Your task to perform on an android device: Go to wifi settings Image 0: 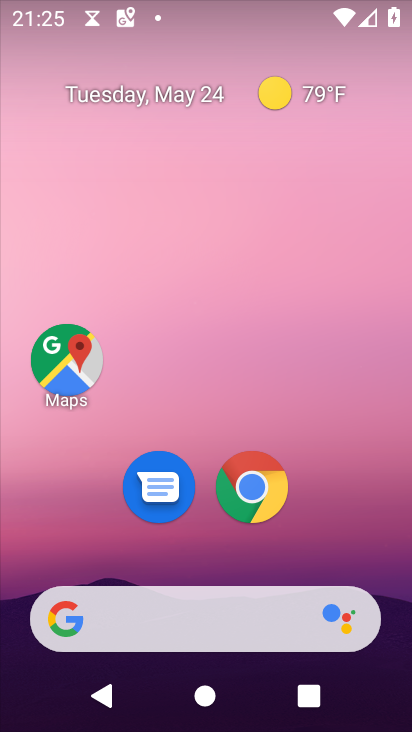
Step 0: press home button
Your task to perform on an android device: Go to wifi settings Image 1: 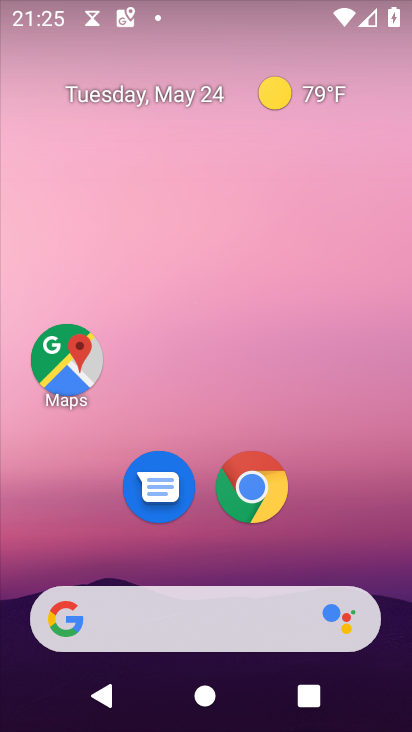
Step 1: drag from (349, 543) to (336, 143)
Your task to perform on an android device: Go to wifi settings Image 2: 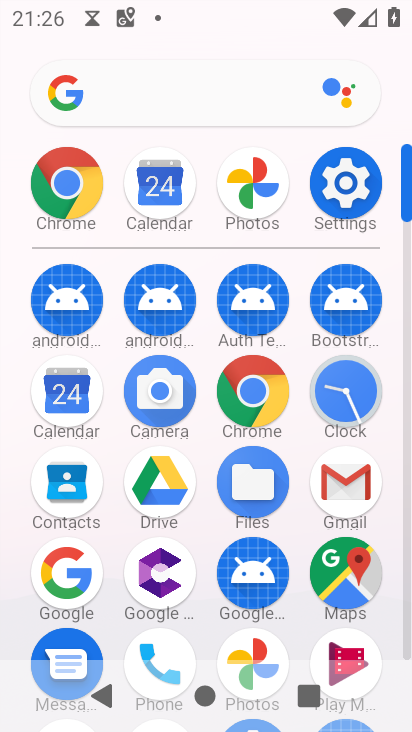
Step 2: drag from (304, 2) to (268, 707)
Your task to perform on an android device: Go to wifi settings Image 3: 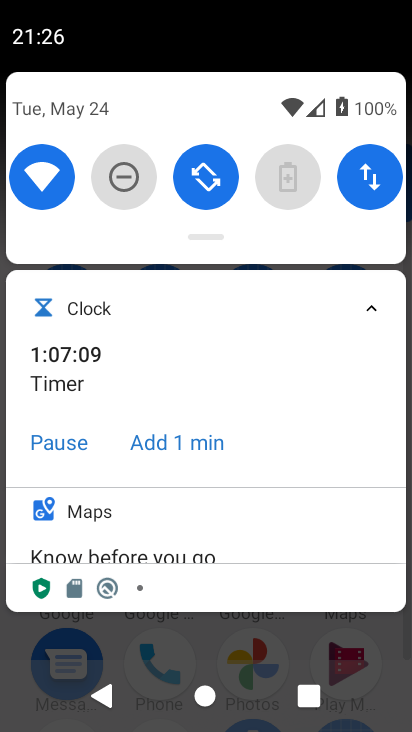
Step 3: drag from (227, 215) to (247, 724)
Your task to perform on an android device: Go to wifi settings Image 4: 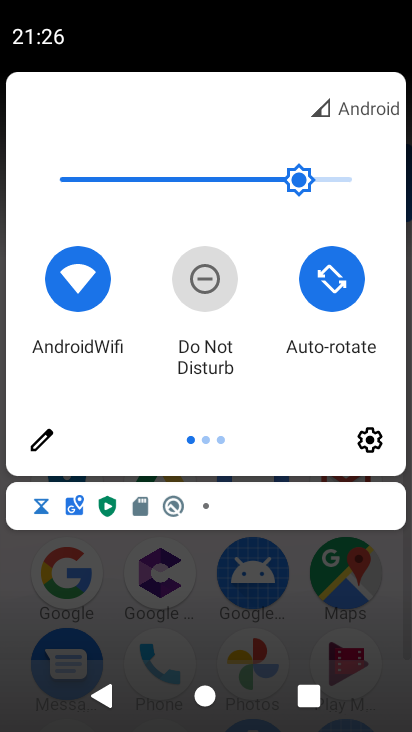
Step 4: click (76, 305)
Your task to perform on an android device: Go to wifi settings Image 5: 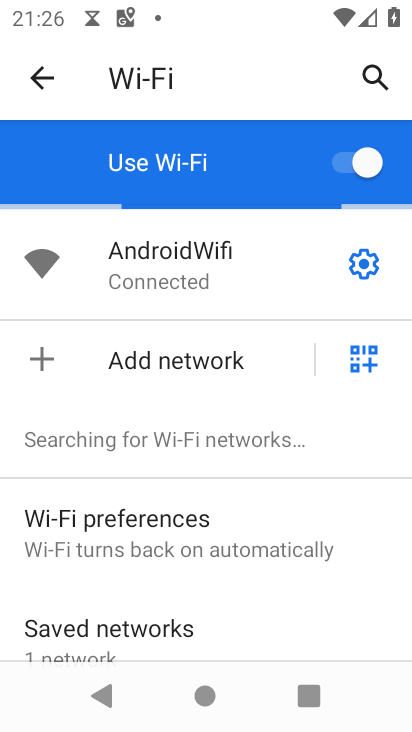
Step 5: task complete